Your task to perform on an android device: Open Google Maps Image 0: 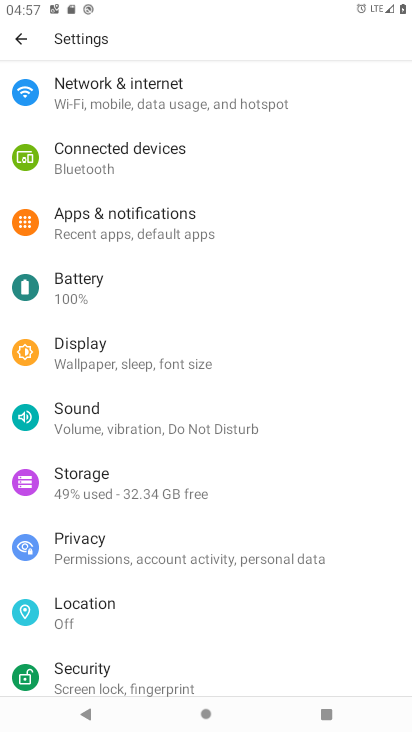
Step 0: press home button
Your task to perform on an android device: Open Google Maps Image 1: 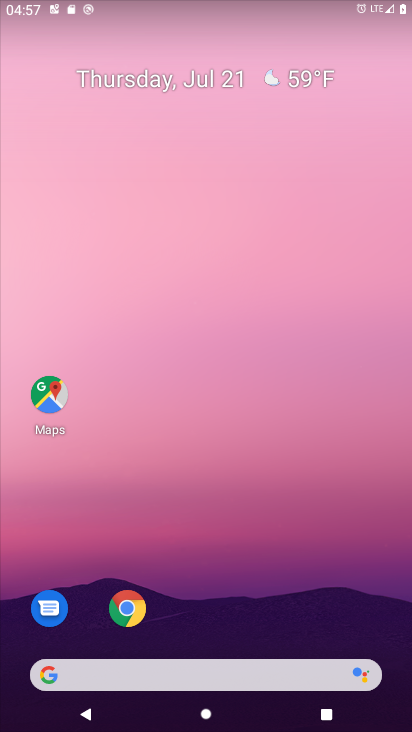
Step 1: drag from (280, 668) to (320, 64)
Your task to perform on an android device: Open Google Maps Image 2: 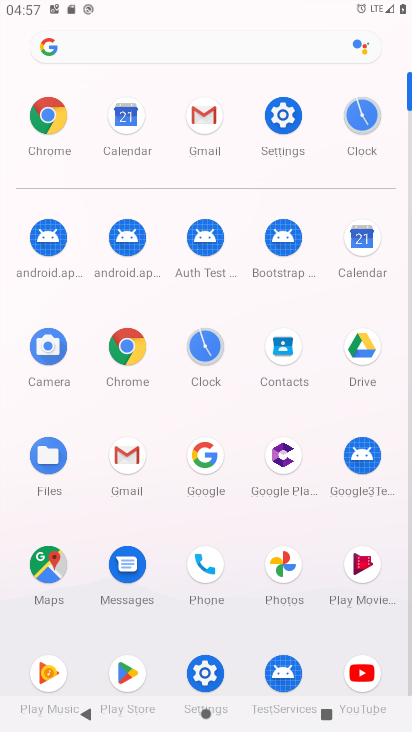
Step 2: click (58, 559)
Your task to perform on an android device: Open Google Maps Image 3: 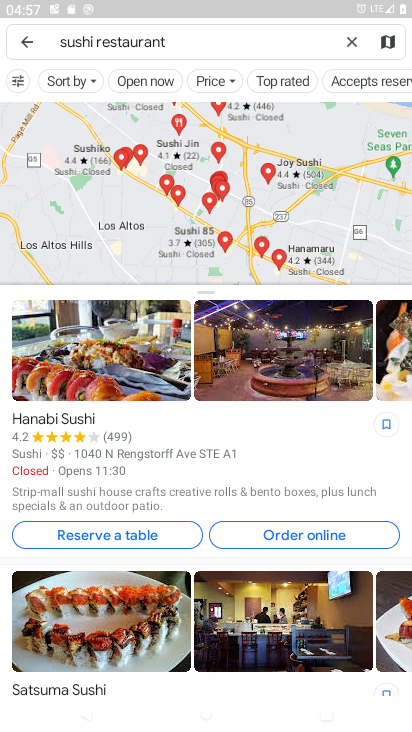
Step 3: task complete